Your task to perform on an android device: Show me popular games on the Play Store Image 0: 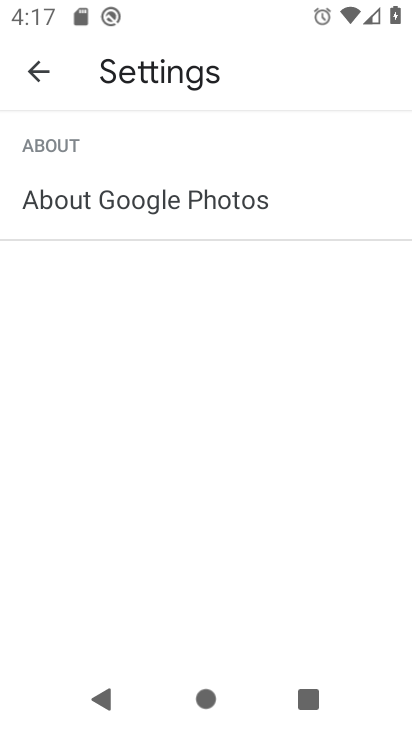
Step 0: press home button
Your task to perform on an android device: Show me popular games on the Play Store Image 1: 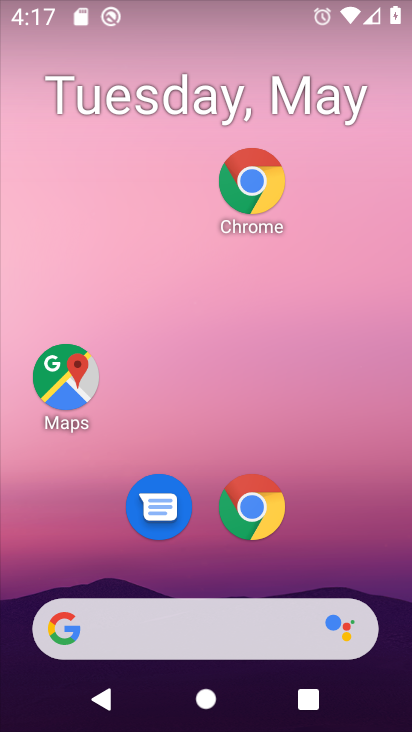
Step 1: drag from (347, 531) to (296, 113)
Your task to perform on an android device: Show me popular games on the Play Store Image 2: 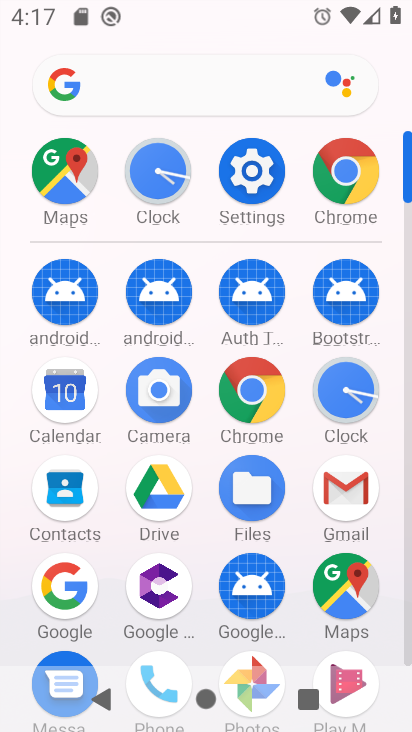
Step 2: drag from (404, 568) to (386, 274)
Your task to perform on an android device: Show me popular games on the Play Store Image 3: 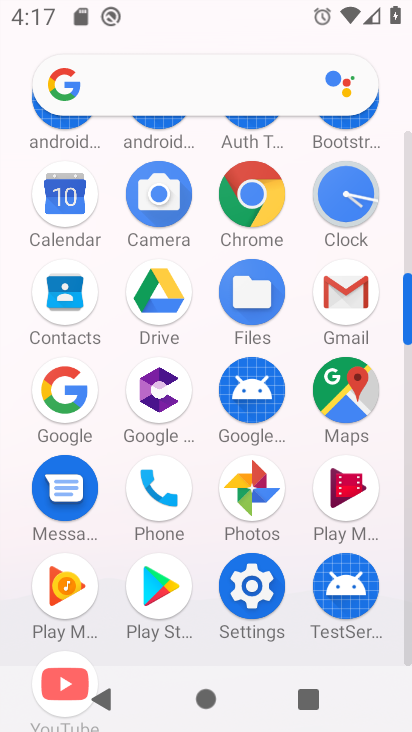
Step 3: click (156, 605)
Your task to perform on an android device: Show me popular games on the Play Store Image 4: 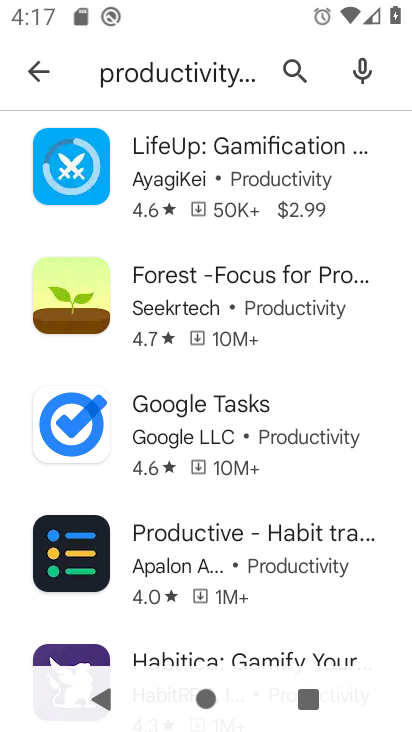
Step 4: click (288, 72)
Your task to perform on an android device: Show me popular games on the Play Store Image 5: 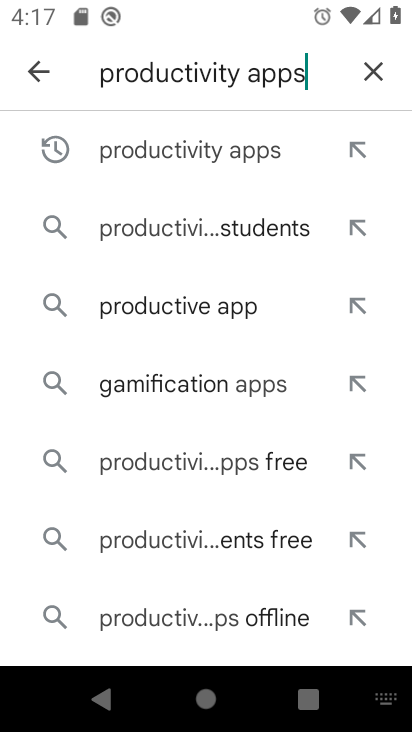
Step 5: click (356, 67)
Your task to perform on an android device: Show me popular games on the Play Store Image 6: 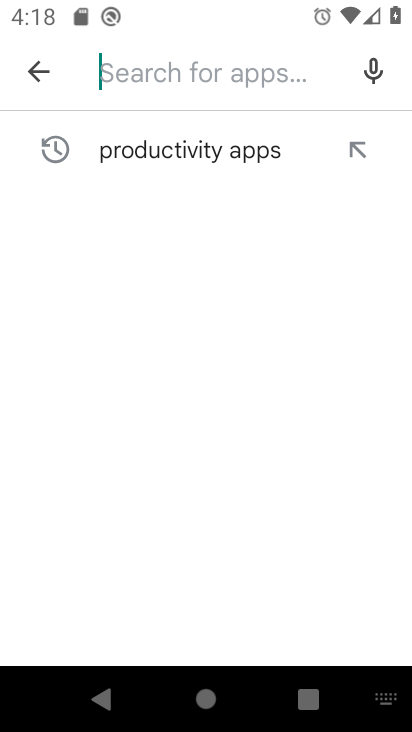
Step 6: type "popular games"
Your task to perform on an android device: Show me popular games on the Play Store Image 7: 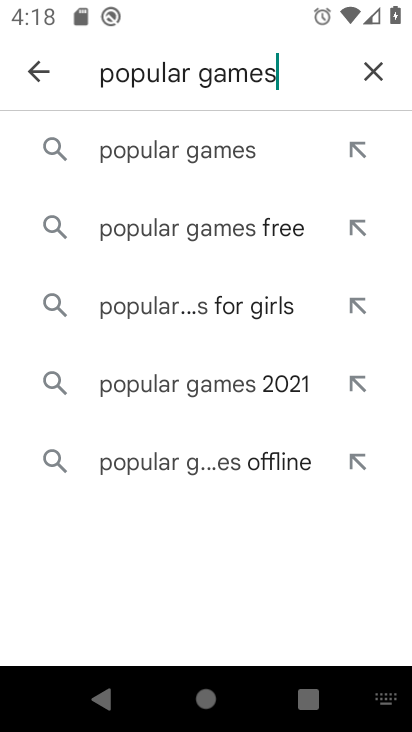
Step 7: click (94, 171)
Your task to perform on an android device: Show me popular games on the Play Store Image 8: 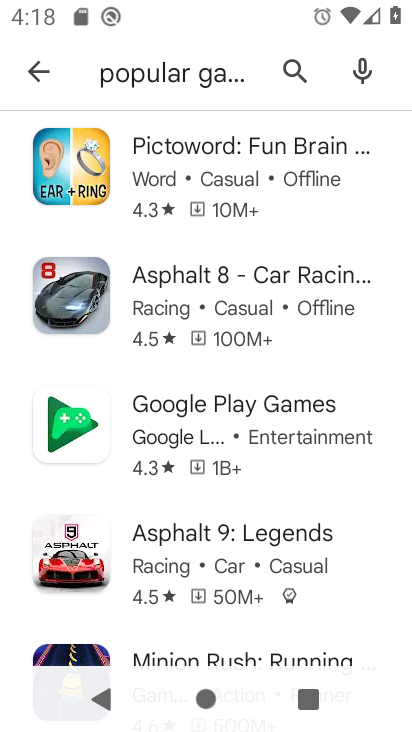
Step 8: task complete